Your task to perform on an android device: Open the web browser Image 0: 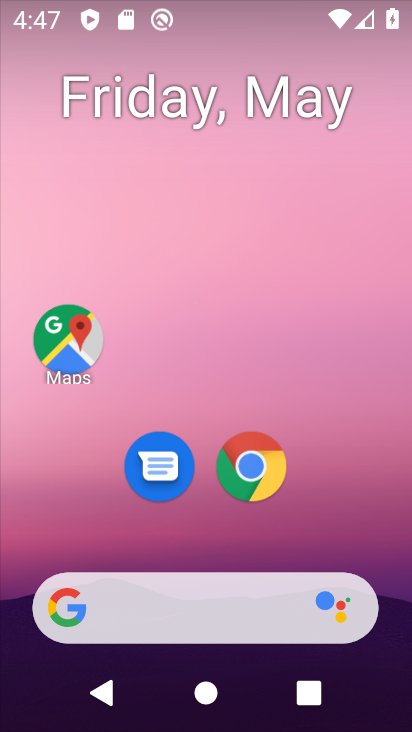
Step 0: click (260, 476)
Your task to perform on an android device: Open the web browser Image 1: 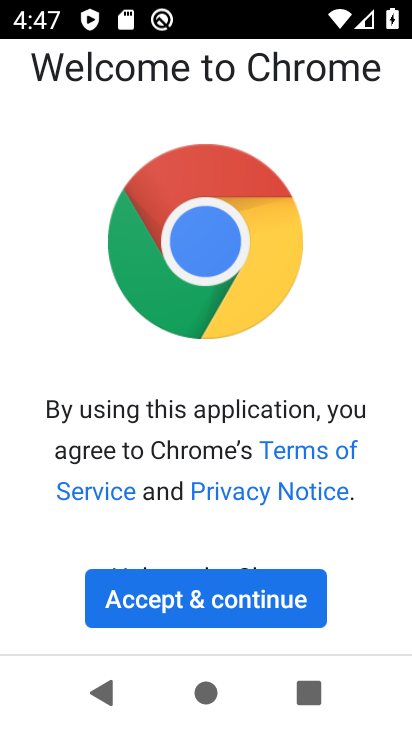
Step 1: click (192, 616)
Your task to perform on an android device: Open the web browser Image 2: 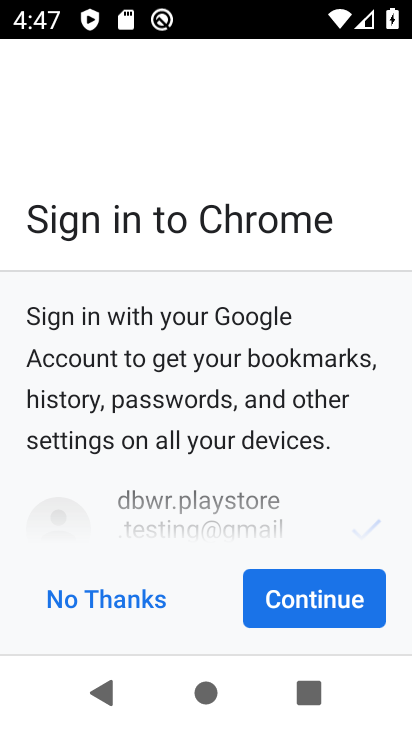
Step 2: click (286, 609)
Your task to perform on an android device: Open the web browser Image 3: 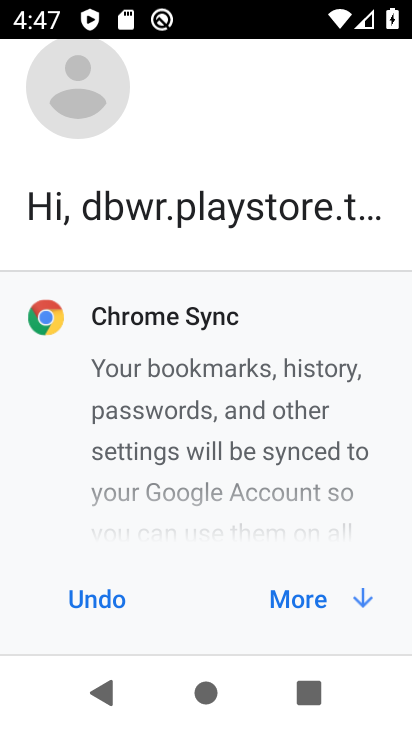
Step 3: click (286, 609)
Your task to perform on an android device: Open the web browser Image 4: 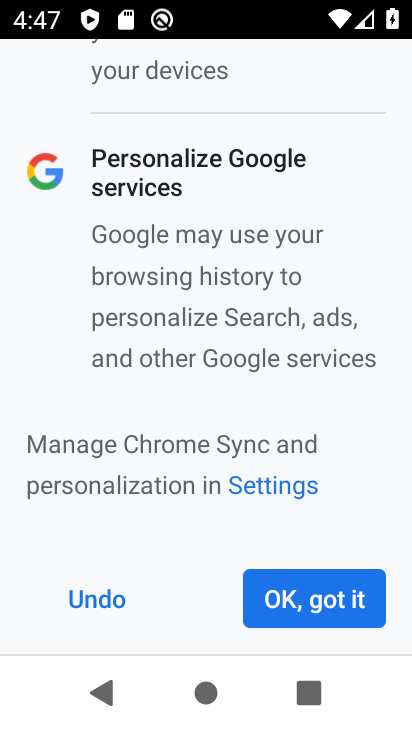
Step 4: click (284, 606)
Your task to perform on an android device: Open the web browser Image 5: 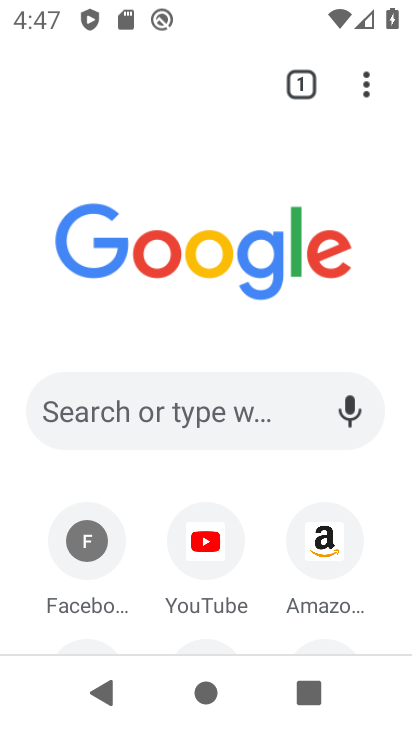
Step 5: task complete